Your task to perform on an android device: What's the weather? Image 0: 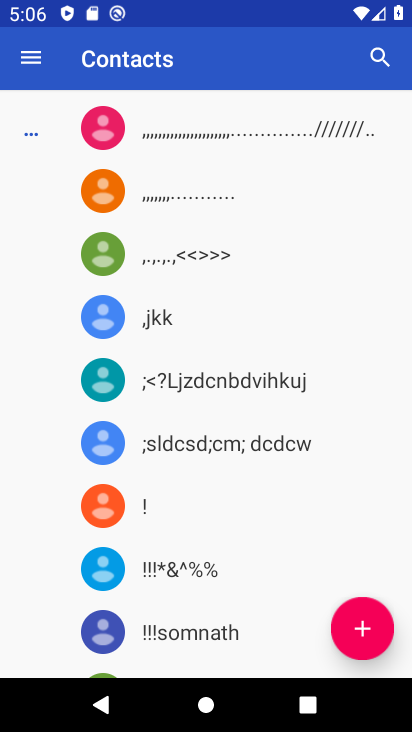
Step 0: press home button
Your task to perform on an android device: What's the weather? Image 1: 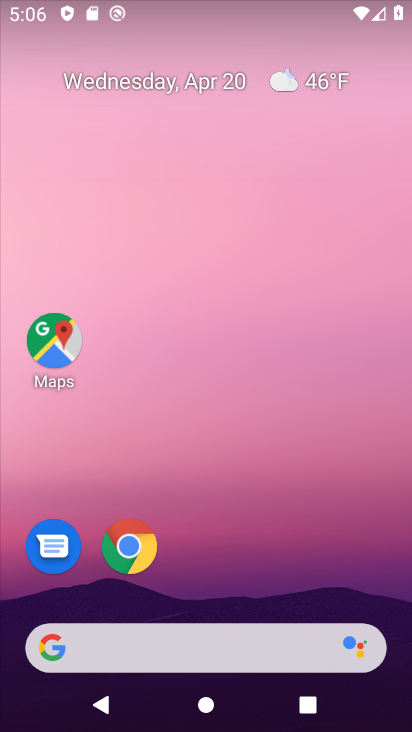
Step 1: drag from (268, 525) to (242, 96)
Your task to perform on an android device: What's the weather? Image 2: 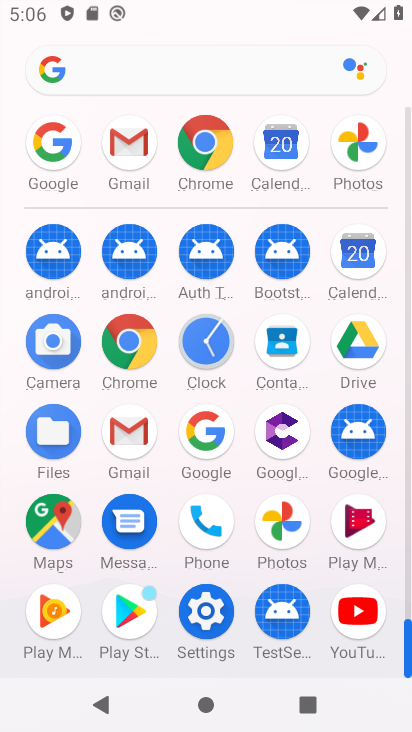
Step 2: press back button
Your task to perform on an android device: What's the weather? Image 3: 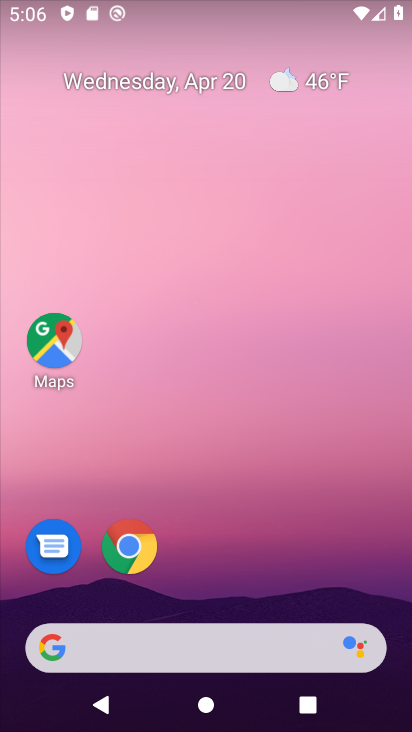
Step 3: drag from (20, 197) to (408, 188)
Your task to perform on an android device: What's the weather? Image 4: 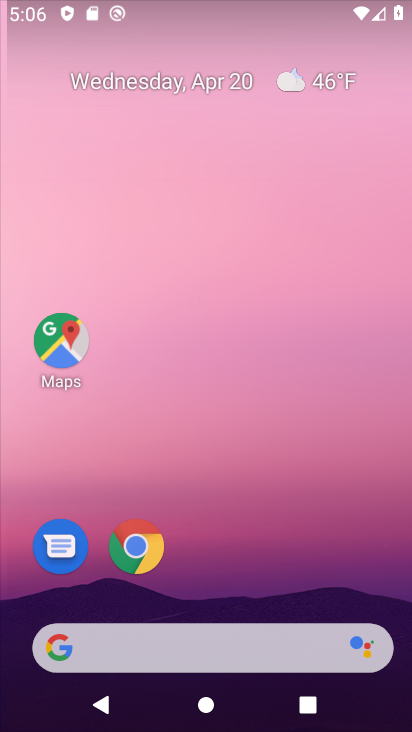
Step 4: drag from (16, 134) to (387, 159)
Your task to perform on an android device: What's the weather? Image 5: 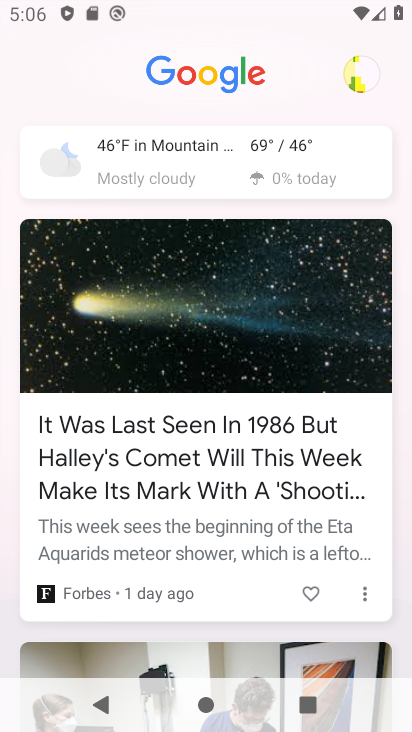
Step 5: click (137, 143)
Your task to perform on an android device: What's the weather? Image 6: 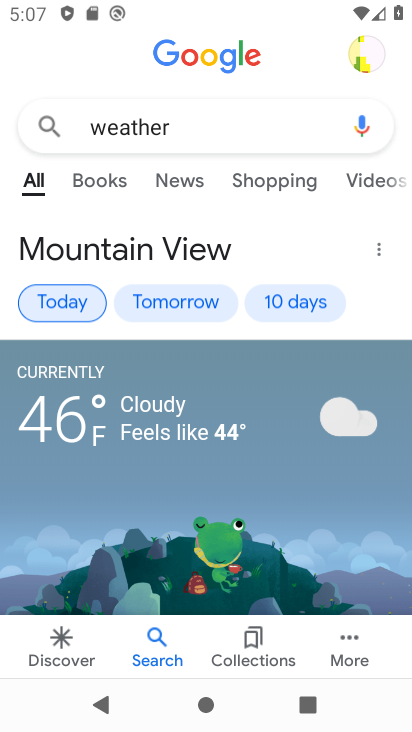
Step 6: task complete